Your task to perform on an android device: What's on the menu at Starbucks? Image 0: 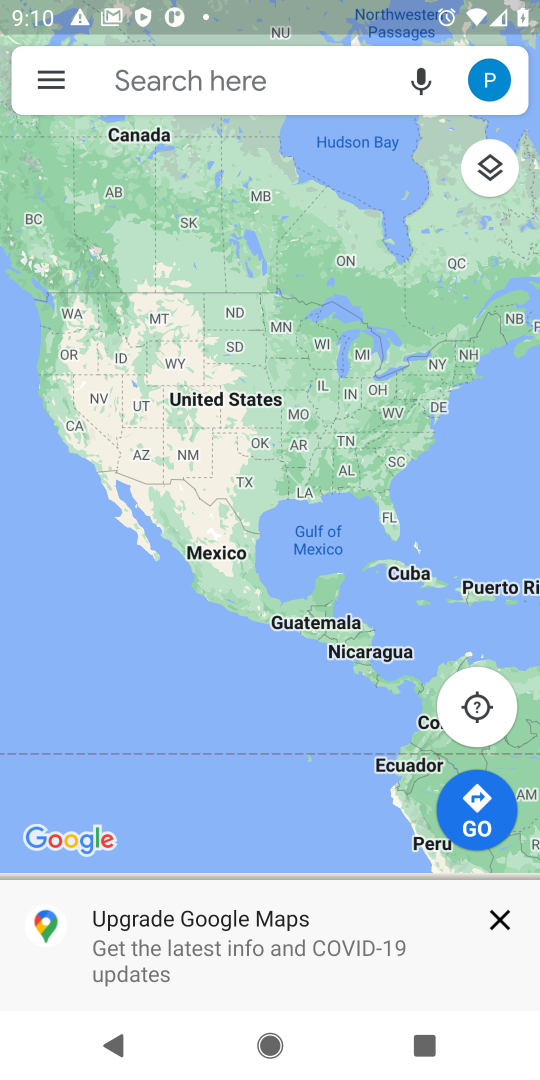
Step 0: press home button
Your task to perform on an android device: What's on the menu at Starbucks? Image 1: 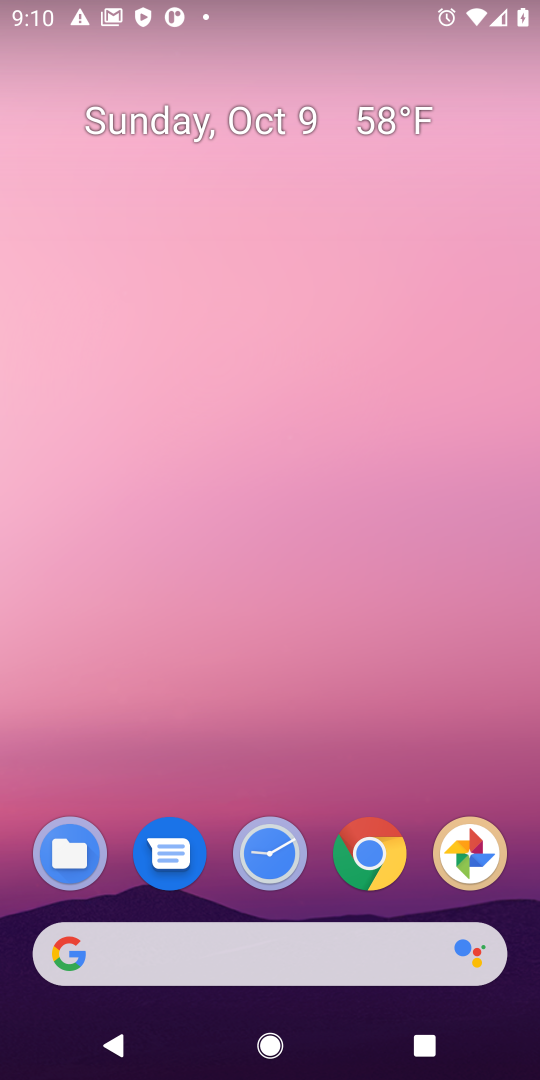
Step 1: click (381, 860)
Your task to perform on an android device: What's on the menu at Starbucks? Image 2: 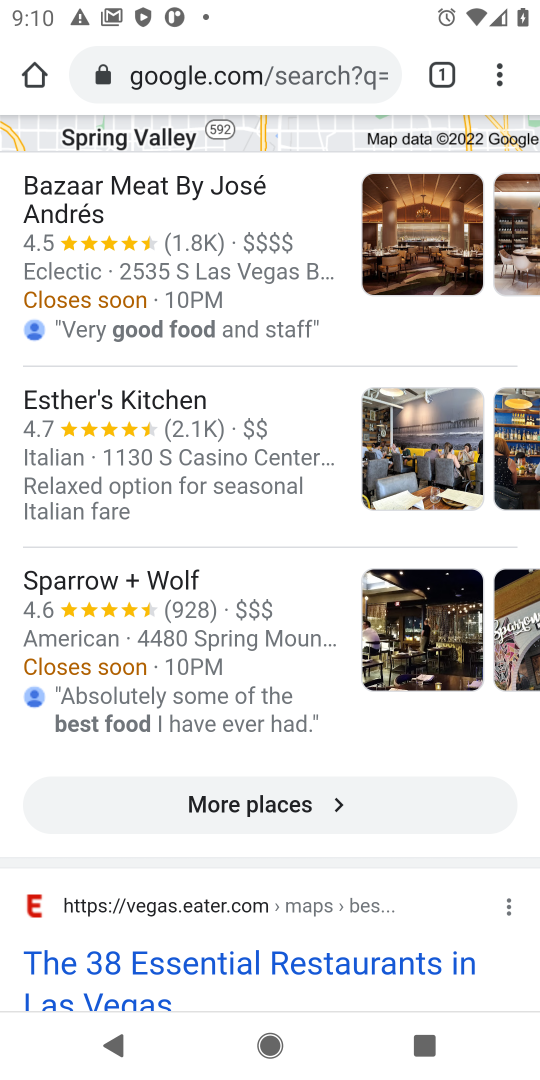
Step 2: click (280, 74)
Your task to perform on an android device: What's on the menu at Starbucks? Image 3: 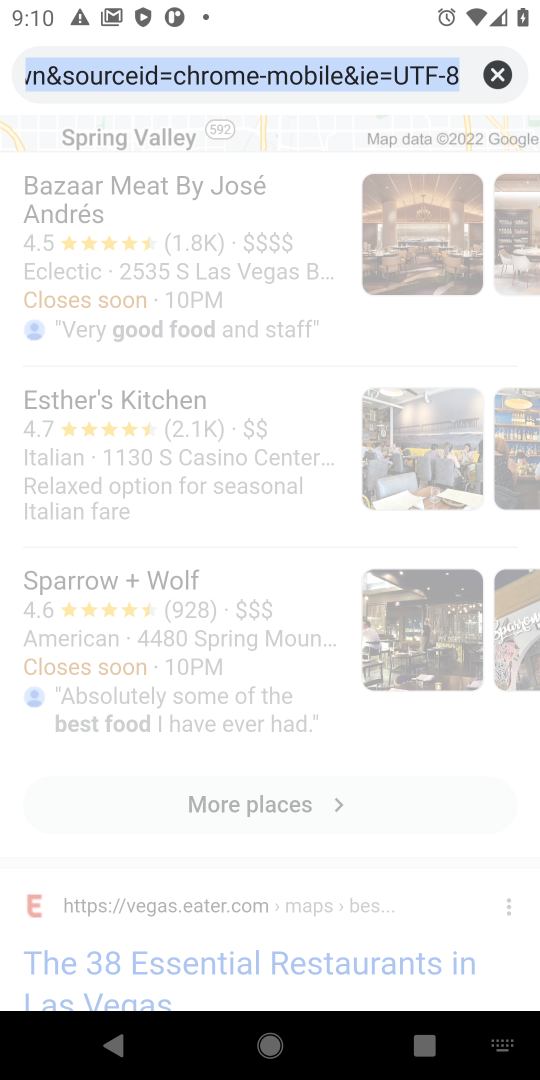
Step 3: type "starbucks menu"
Your task to perform on an android device: What's on the menu at Starbucks? Image 4: 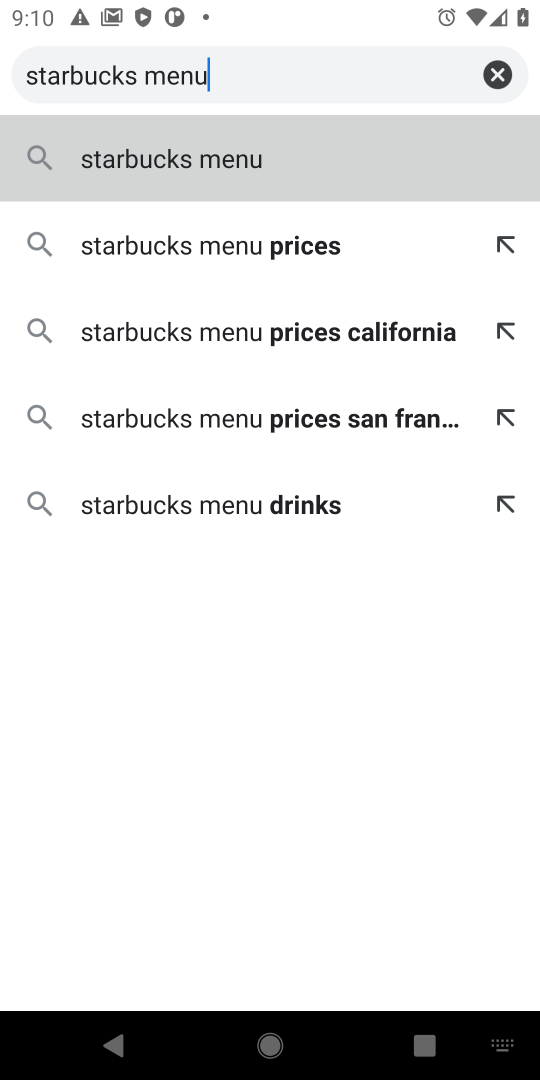
Step 4: click (353, 170)
Your task to perform on an android device: What's on the menu at Starbucks? Image 5: 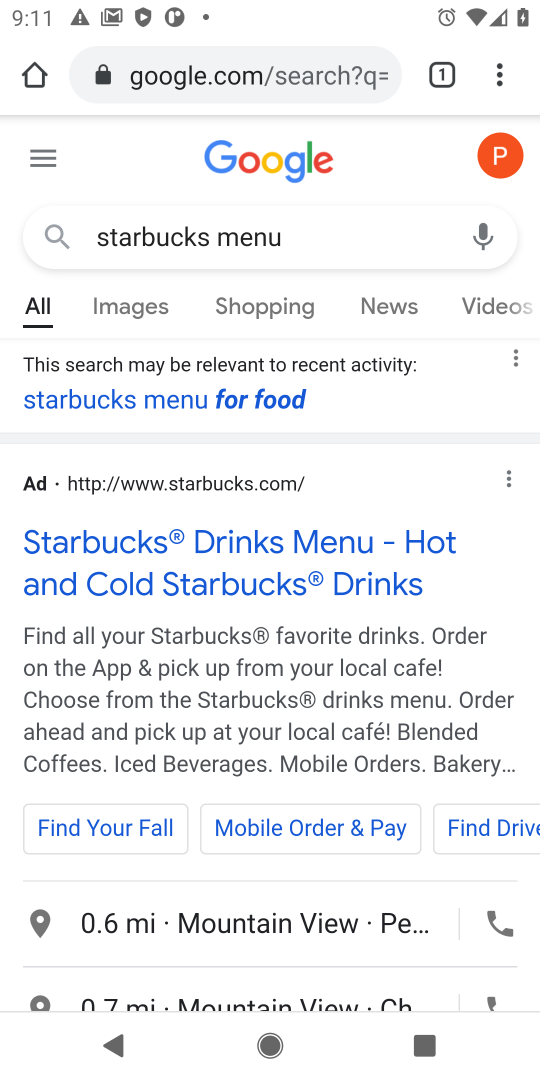
Step 5: drag from (345, 707) to (313, 23)
Your task to perform on an android device: What's on the menu at Starbucks? Image 6: 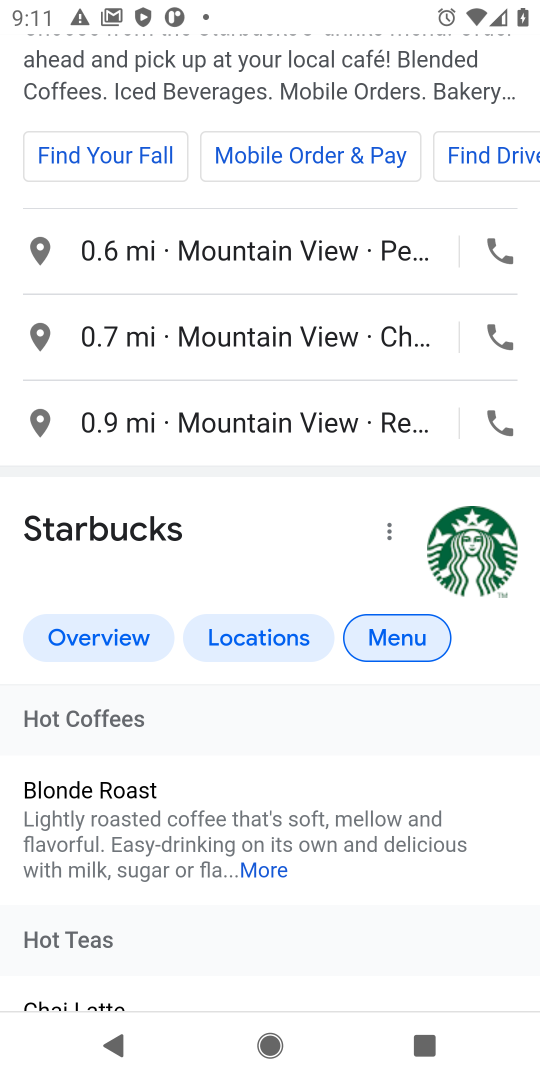
Step 6: drag from (358, 917) to (320, 483)
Your task to perform on an android device: What's on the menu at Starbucks? Image 7: 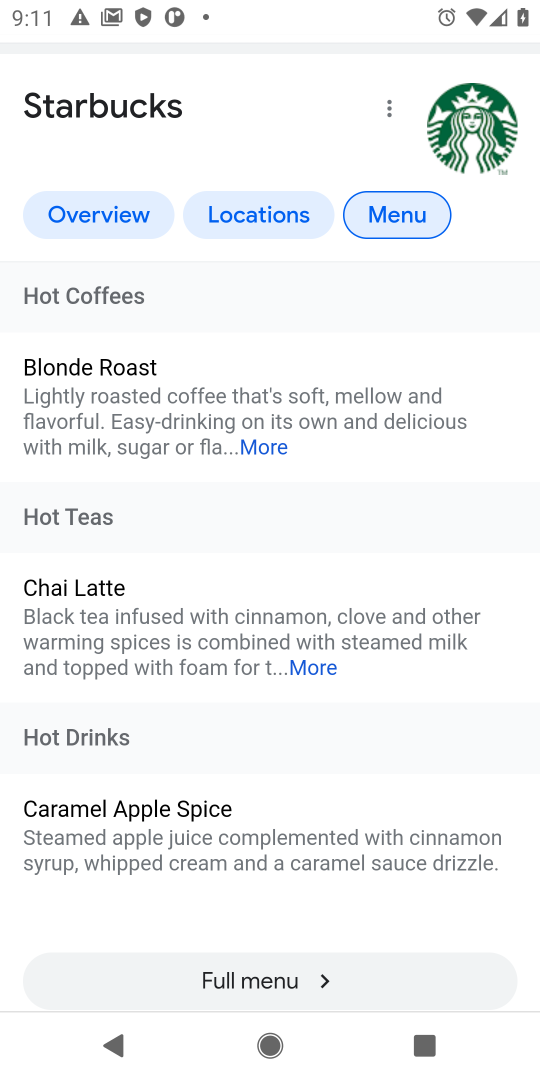
Step 7: click (306, 981)
Your task to perform on an android device: What's on the menu at Starbucks? Image 8: 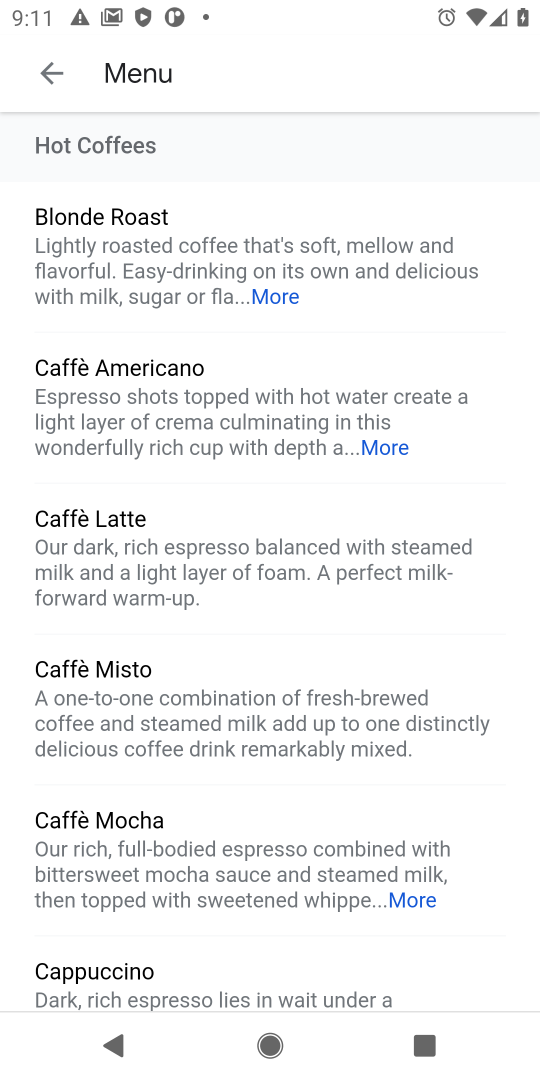
Step 8: task complete